Your task to perform on an android device: Do I have any events tomorrow? Image 0: 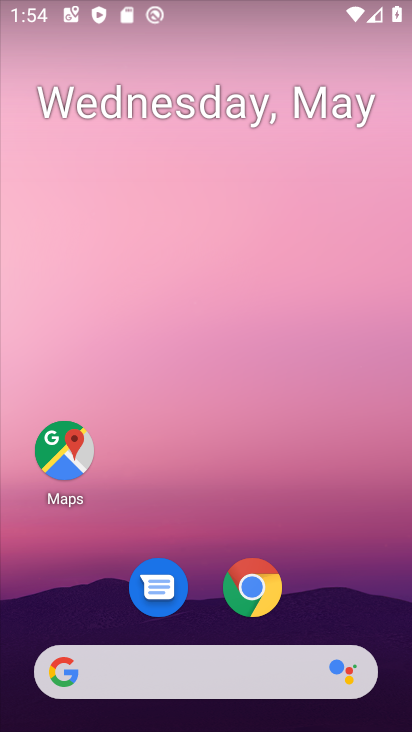
Step 0: drag from (326, 585) to (305, 106)
Your task to perform on an android device: Do I have any events tomorrow? Image 1: 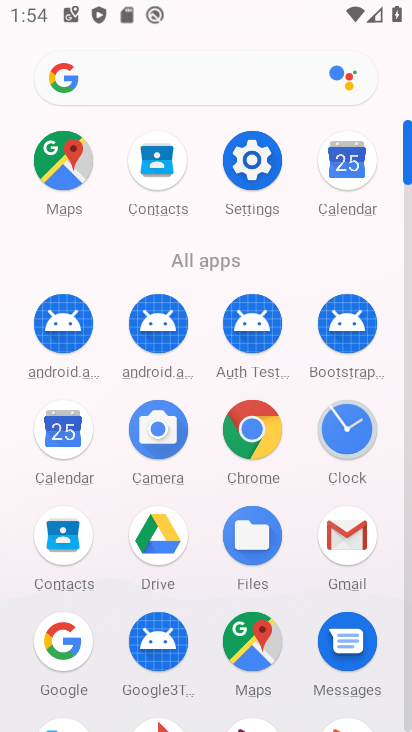
Step 1: drag from (196, 551) to (209, 301)
Your task to perform on an android device: Do I have any events tomorrow? Image 2: 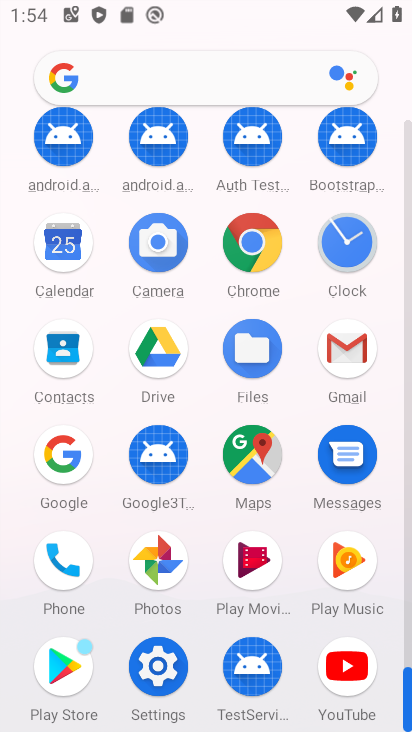
Step 2: drag from (182, 133) to (135, 725)
Your task to perform on an android device: Do I have any events tomorrow? Image 3: 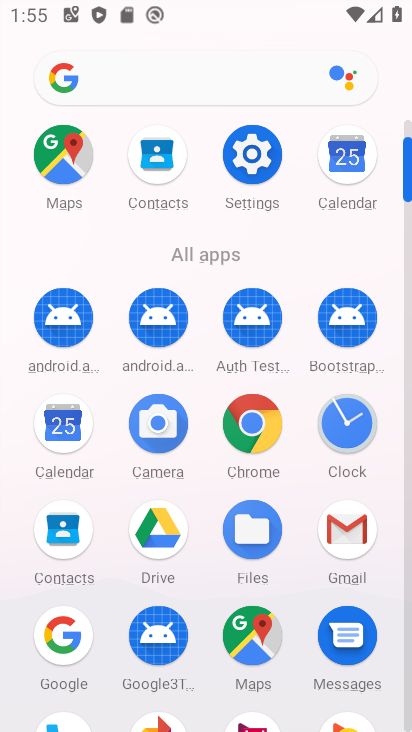
Step 3: drag from (317, 614) to (296, 390)
Your task to perform on an android device: Do I have any events tomorrow? Image 4: 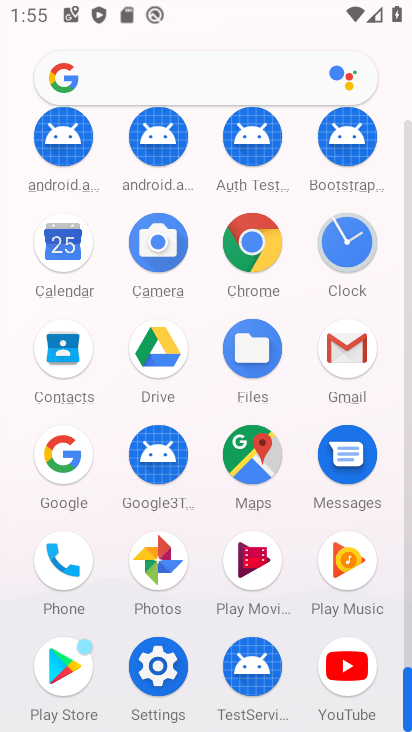
Step 4: click (73, 238)
Your task to perform on an android device: Do I have any events tomorrow? Image 5: 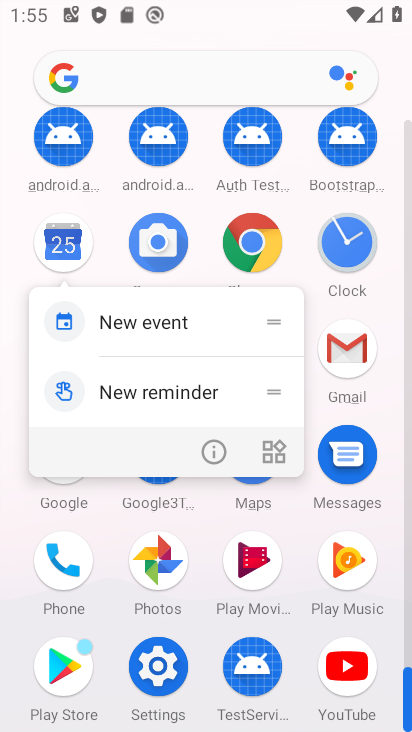
Step 5: click (40, 210)
Your task to perform on an android device: Do I have any events tomorrow? Image 6: 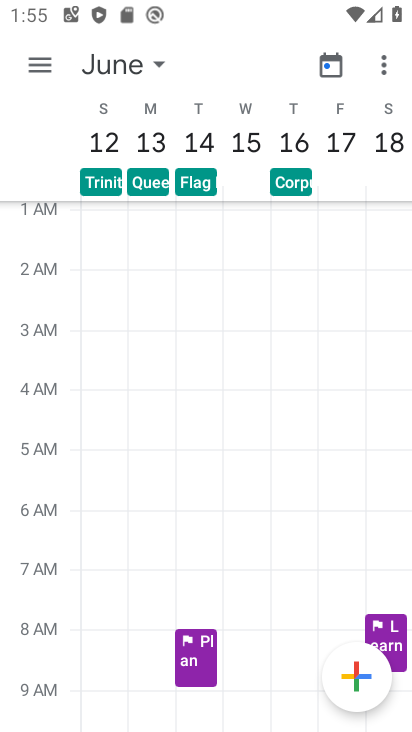
Step 6: click (36, 61)
Your task to perform on an android device: Do I have any events tomorrow? Image 7: 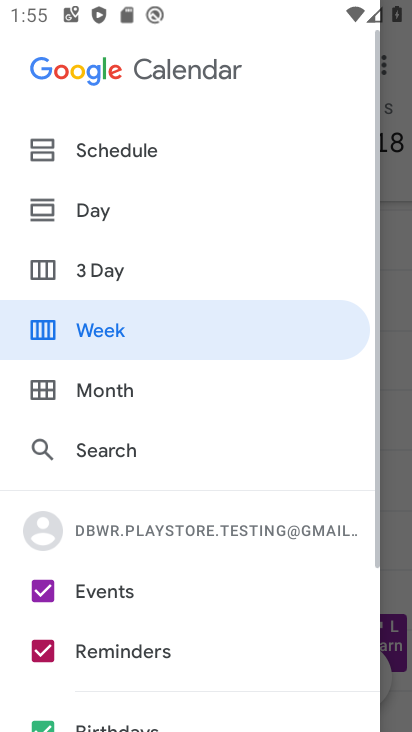
Step 7: click (98, 204)
Your task to perform on an android device: Do I have any events tomorrow? Image 8: 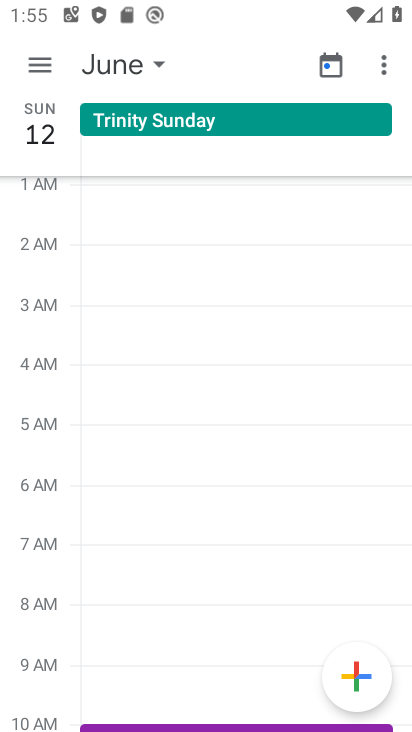
Step 8: click (113, 56)
Your task to perform on an android device: Do I have any events tomorrow? Image 9: 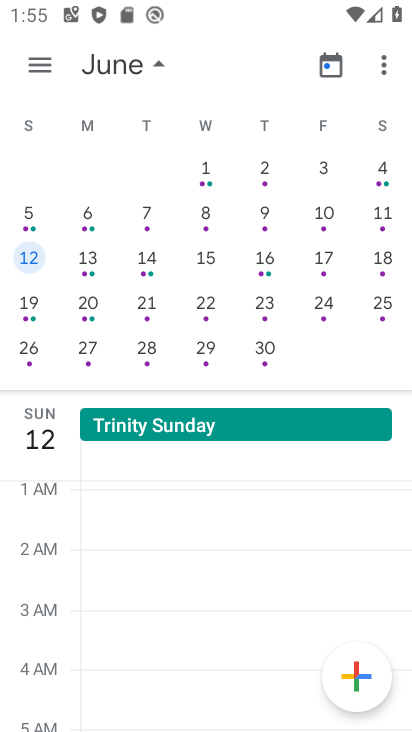
Step 9: drag from (25, 241) to (398, 299)
Your task to perform on an android device: Do I have any events tomorrow? Image 10: 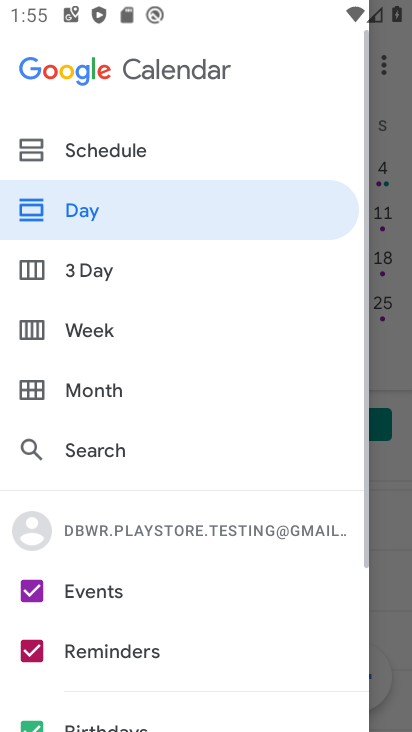
Step 10: drag from (295, 300) to (0, 271)
Your task to perform on an android device: Do I have any events tomorrow? Image 11: 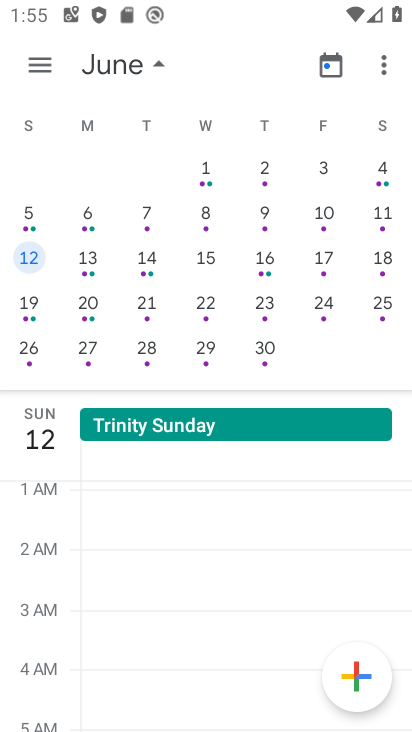
Step 11: drag from (117, 238) to (405, 217)
Your task to perform on an android device: Do I have any events tomorrow? Image 12: 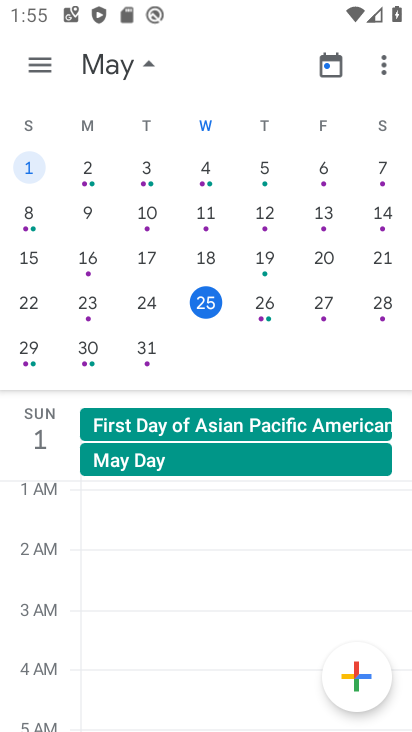
Step 12: click (265, 314)
Your task to perform on an android device: Do I have any events tomorrow? Image 13: 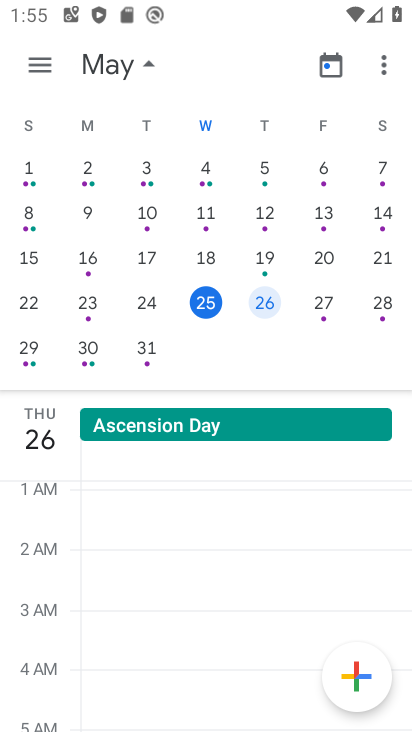
Step 13: task complete